Your task to perform on an android device: turn notification dots on Image 0: 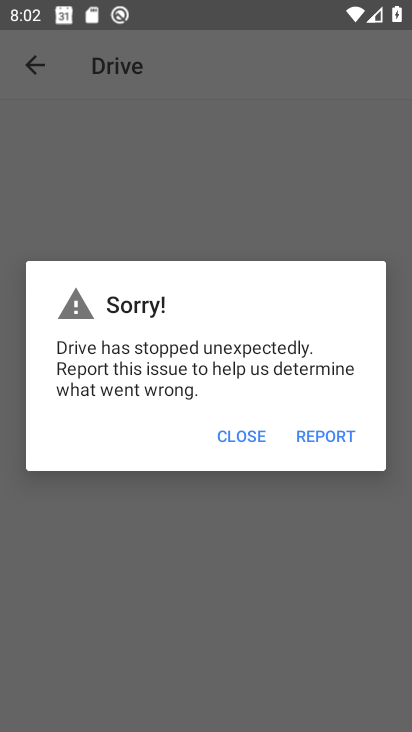
Step 0: drag from (318, 19) to (323, 653)
Your task to perform on an android device: turn notification dots on Image 1: 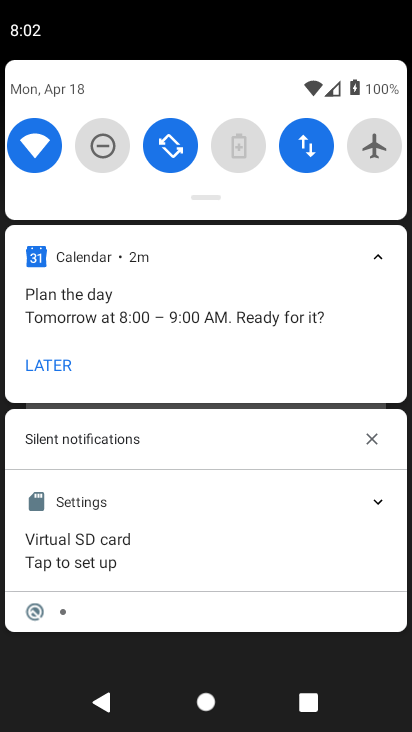
Step 1: drag from (231, 87) to (221, 682)
Your task to perform on an android device: turn notification dots on Image 2: 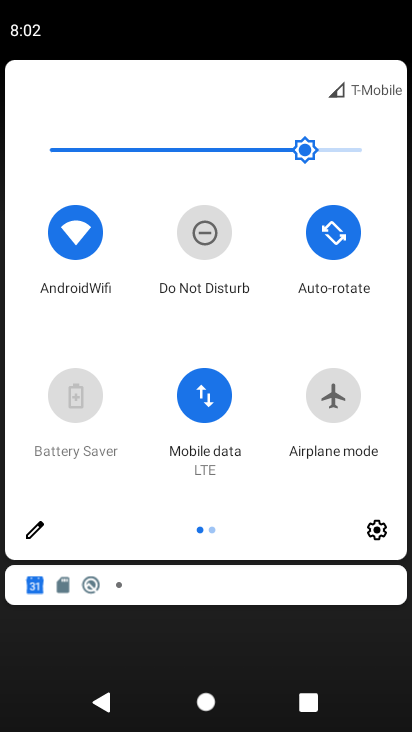
Step 2: click (383, 531)
Your task to perform on an android device: turn notification dots on Image 3: 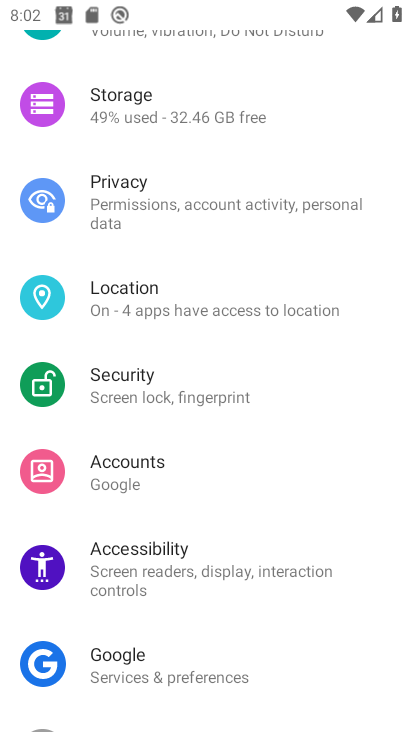
Step 3: drag from (166, 571) to (194, 272)
Your task to perform on an android device: turn notification dots on Image 4: 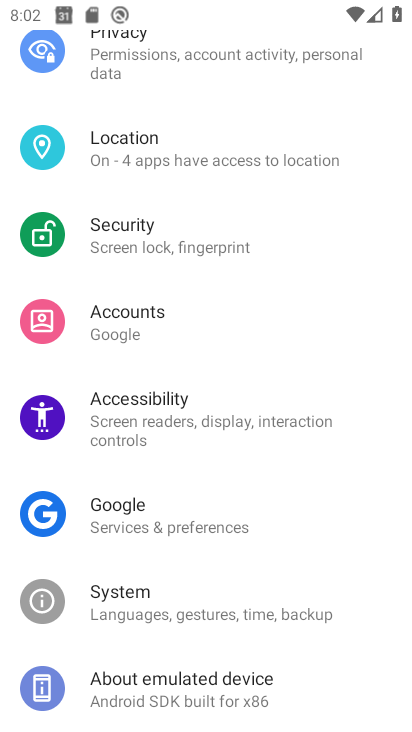
Step 4: drag from (192, 160) to (179, 553)
Your task to perform on an android device: turn notification dots on Image 5: 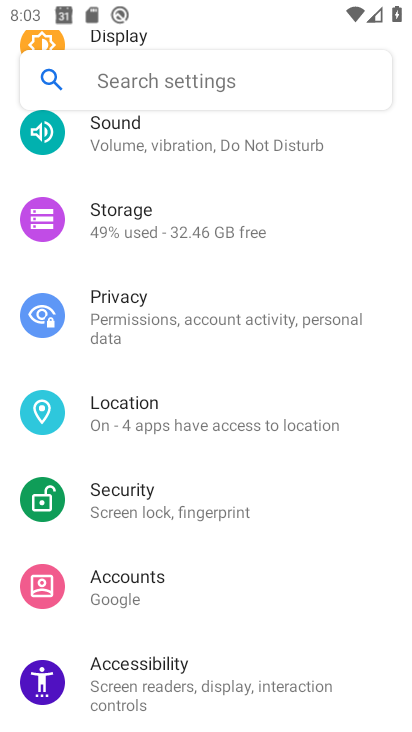
Step 5: drag from (200, 151) to (204, 648)
Your task to perform on an android device: turn notification dots on Image 6: 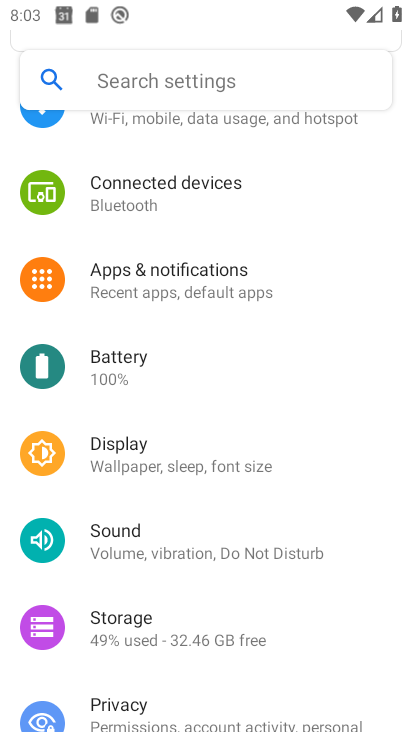
Step 6: click (152, 297)
Your task to perform on an android device: turn notification dots on Image 7: 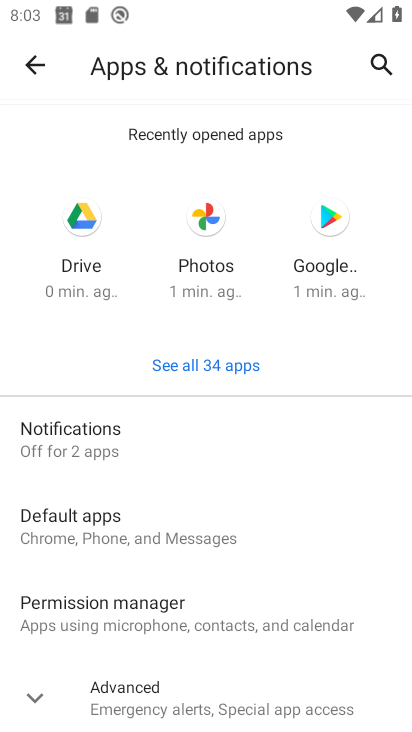
Step 7: click (183, 463)
Your task to perform on an android device: turn notification dots on Image 8: 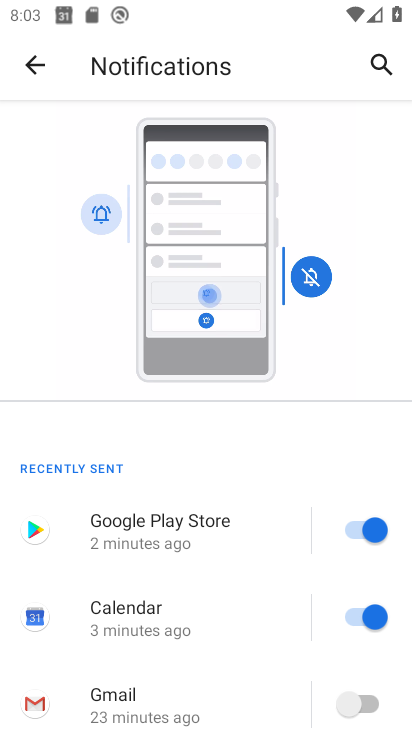
Step 8: drag from (191, 638) to (297, 87)
Your task to perform on an android device: turn notification dots on Image 9: 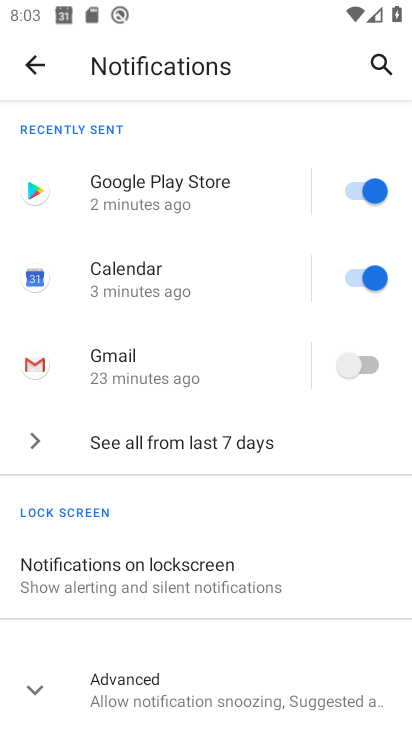
Step 9: drag from (128, 677) to (254, 290)
Your task to perform on an android device: turn notification dots on Image 10: 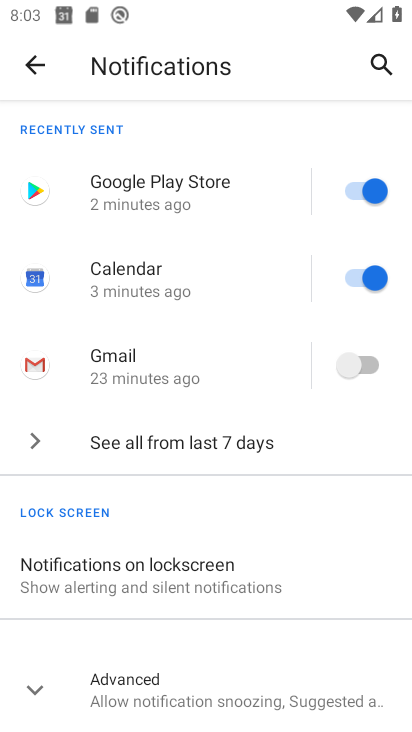
Step 10: click (176, 666)
Your task to perform on an android device: turn notification dots on Image 11: 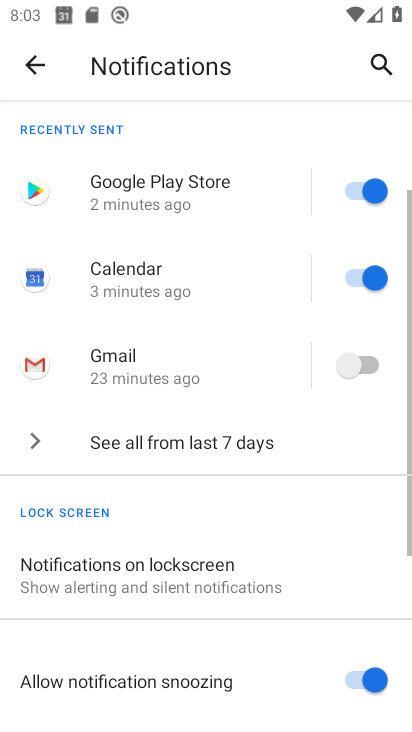
Step 11: drag from (176, 666) to (166, 257)
Your task to perform on an android device: turn notification dots on Image 12: 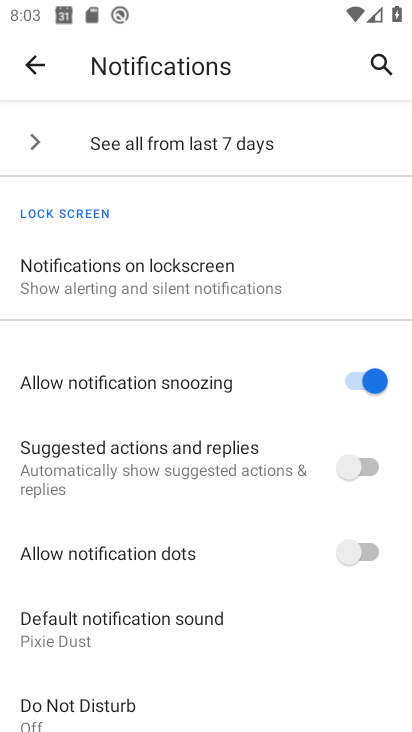
Step 12: click (371, 556)
Your task to perform on an android device: turn notification dots on Image 13: 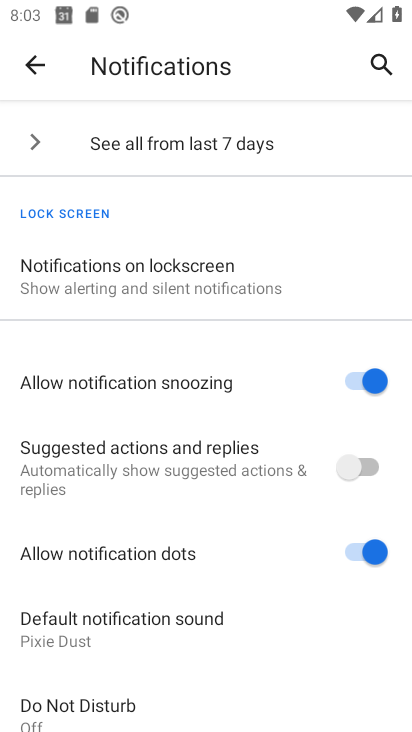
Step 13: task complete